Your task to perform on an android device: open a new tab in the chrome app Image 0: 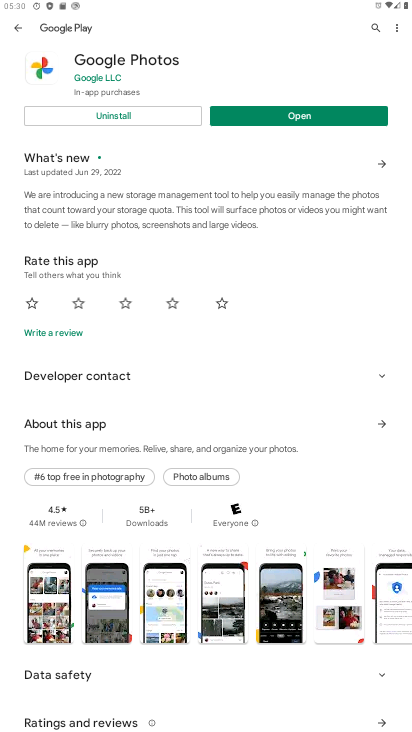
Step 0: press home button
Your task to perform on an android device: open a new tab in the chrome app Image 1: 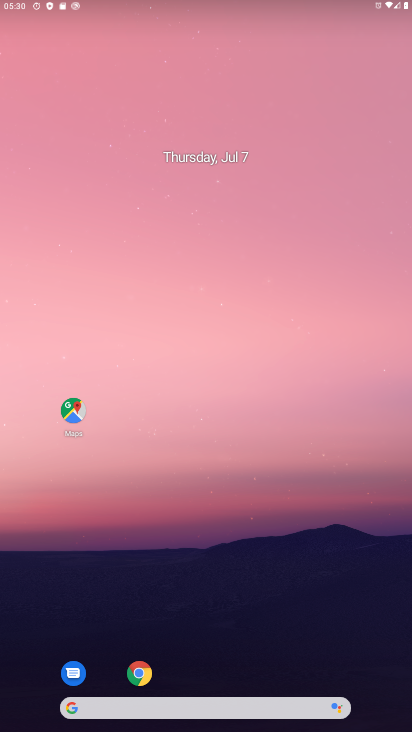
Step 1: drag from (314, 686) to (359, 30)
Your task to perform on an android device: open a new tab in the chrome app Image 2: 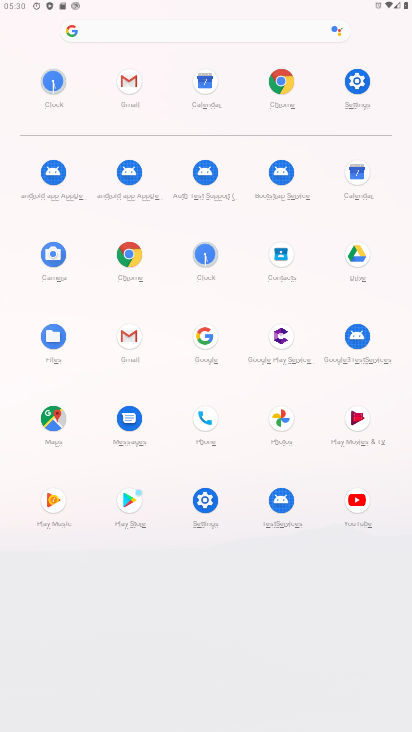
Step 2: click (125, 257)
Your task to perform on an android device: open a new tab in the chrome app Image 3: 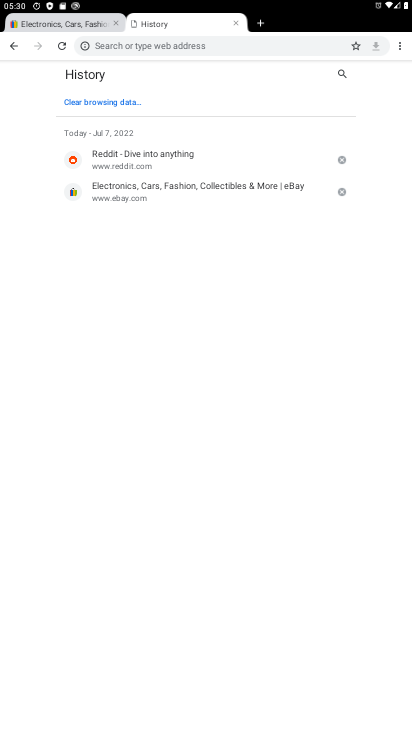
Step 3: click (402, 44)
Your task to perform on an android device: open a new tab in the chrome app Image 4: 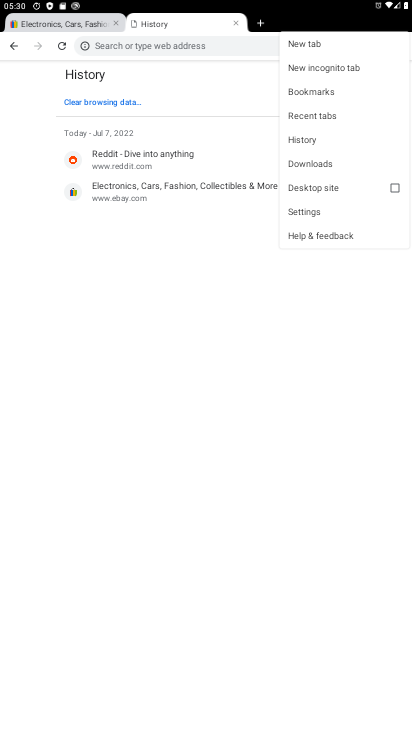
Step 4: click (315, 49)
Your task to perform on an android device: open a new tab in the chrome app Image 5: 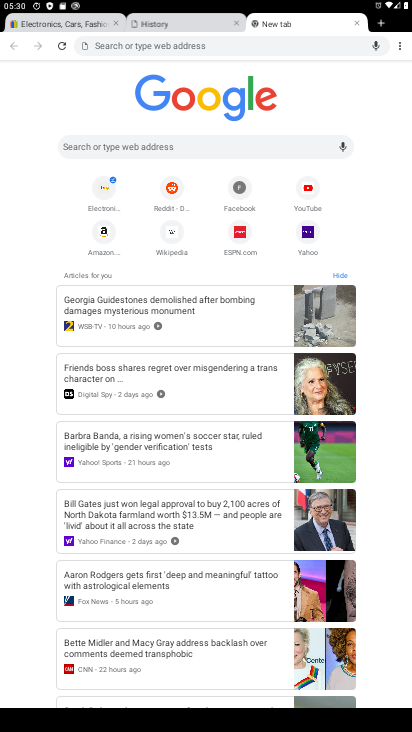
Step 5: task complete